Your task to perform on an android device: create a new album in the google photos Image 0: 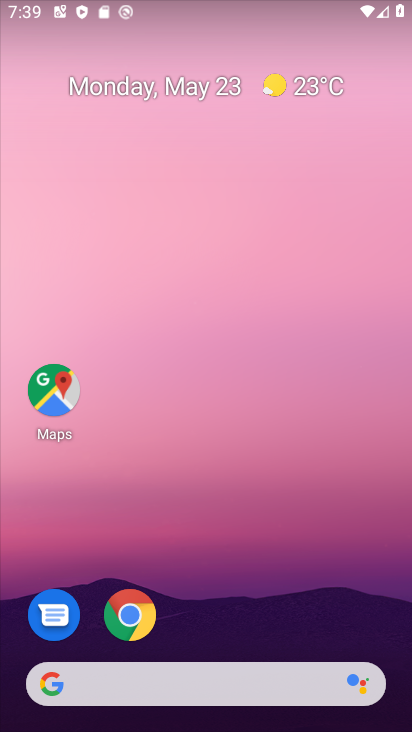
Step 0: drag from (216, 561) to (179, 188)
Your task to perform on an android device: create a new album in the google photos Image 1: 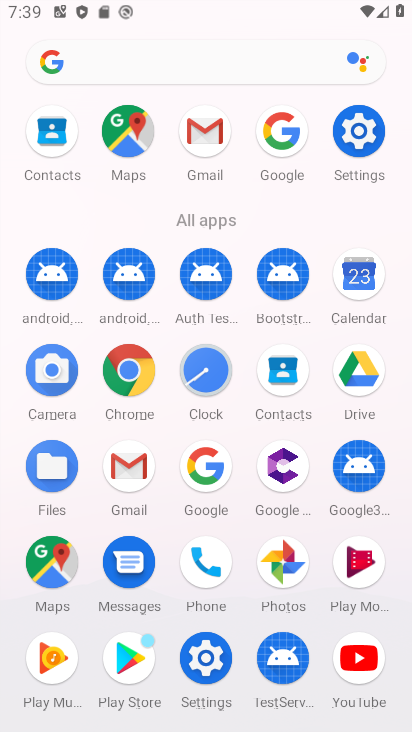
Step 1: click (284, 561)
Your task to perform on an android device: create a new album in the google photos Image 2: 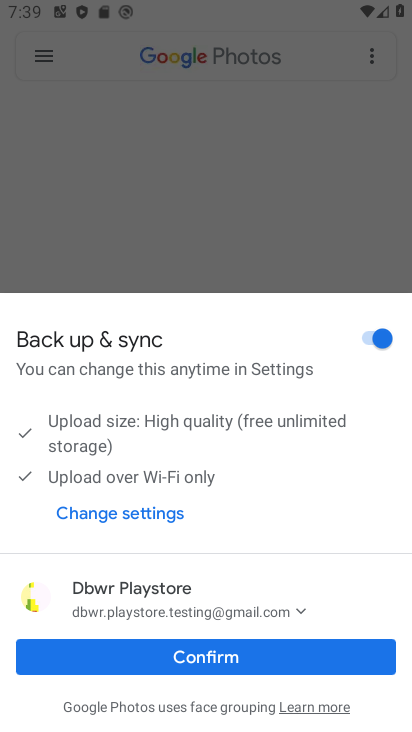
Step 2: click (214, 651)
Your task to perform on an android device: create a new album in the google photos Image 3: 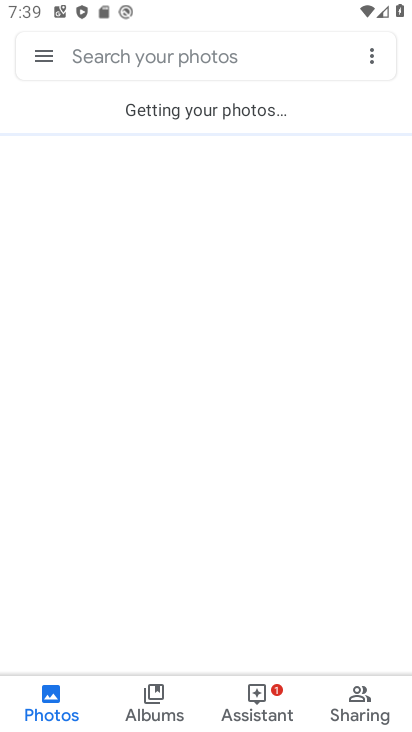
Step 3: click (372, 57)
Your task to perform on an android device: create a new album in the google photos Image 4: 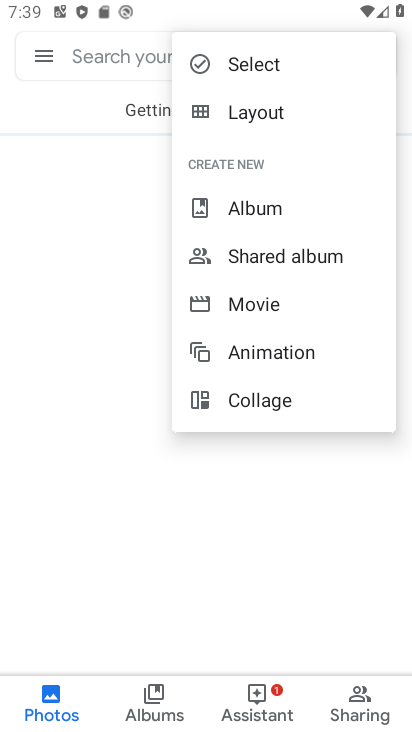
Step 4: click (249, 207)
Your task to perform on an android device: create a new album in the google photos Image 5: 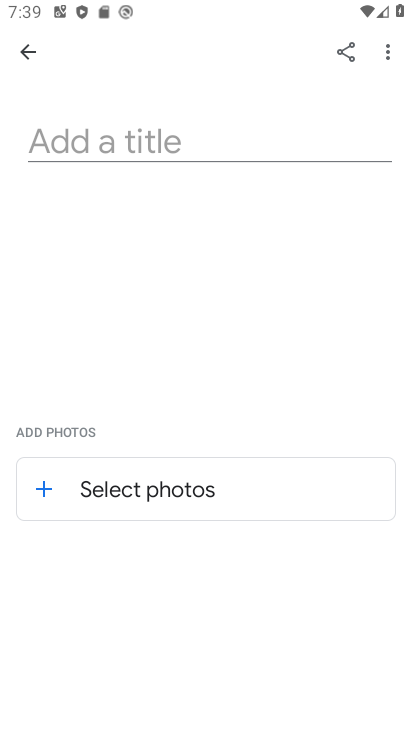
Step 5: click (242, 150)
Your task to perform on an android device: create a new album in the google photos Image 6: 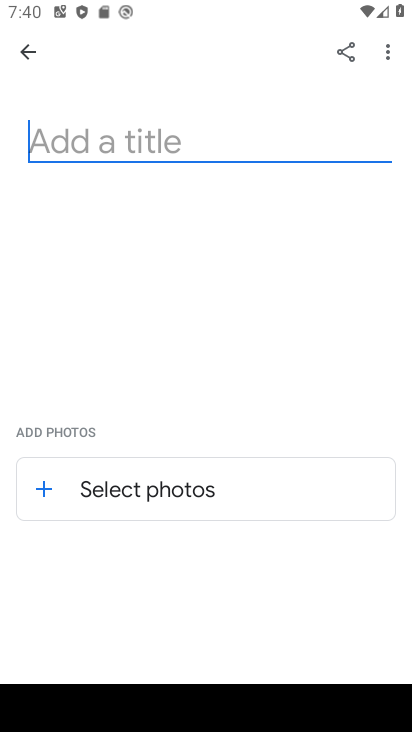
Step 6: type "Sunshine"
Your task to perform on an android device: create a new album in the google photos Image 7: 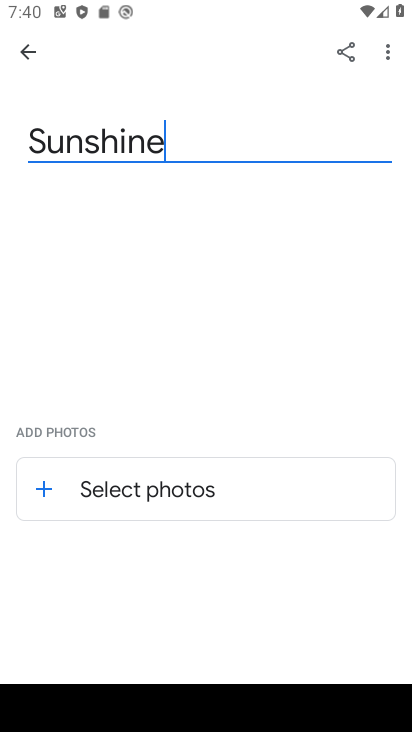
Step 7: click (44, 485)
Your task to perform on an android device: create a new album in the google photos Image 8: 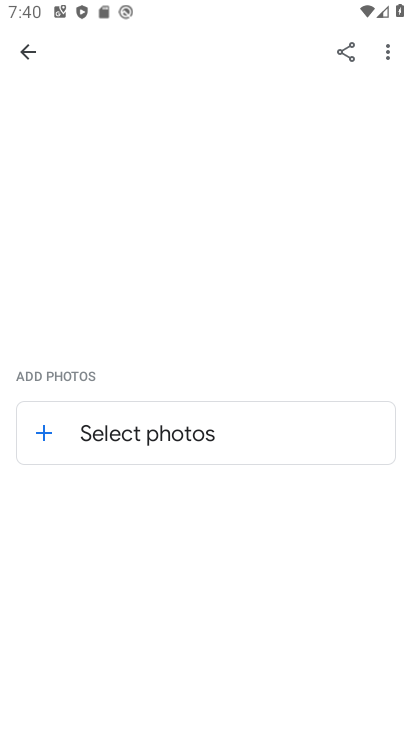
Step 8: click (133, 433)
Your task to perform on an android device: create a new album in the google photos Image 9: 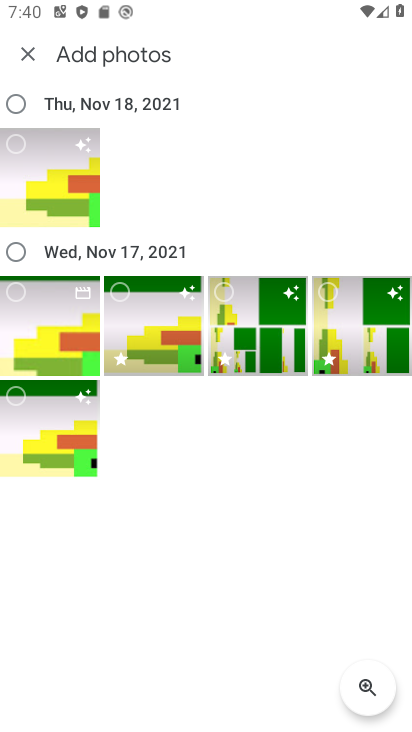
Step 9: click (15, 104)
Your task to perform on an android device: create a new album in the google photos Image 10: 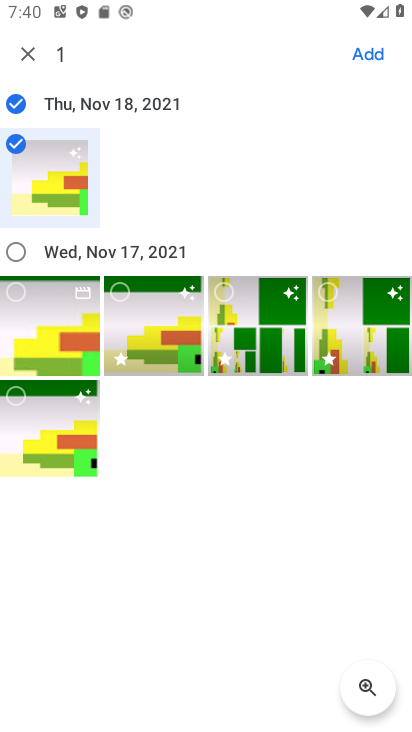
Step 10: click (366, 55)
Your task to perform on an android device: create a new album in the google photos Image 11: 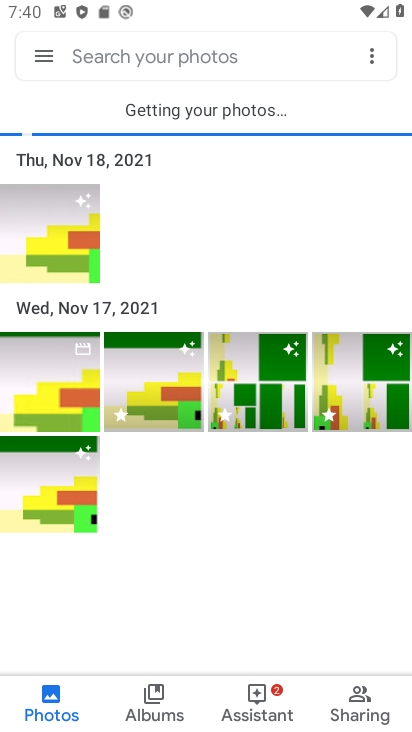
Step 11: task complete